Your task to perform on an android device: Go to wifi settings Image 0: 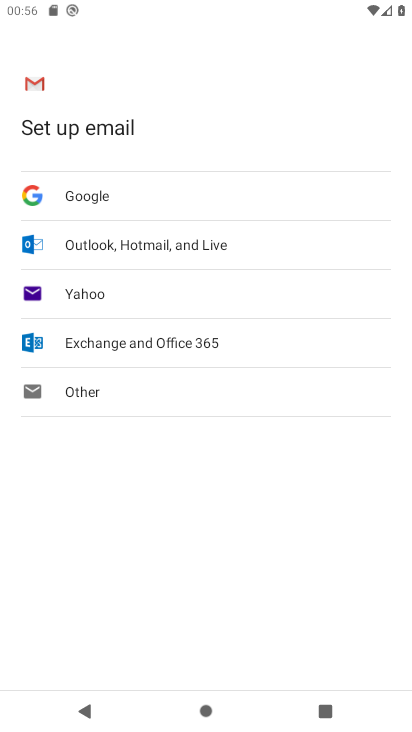
Step 0: press home button
Your task to perform on an android device: Go to wifi settings Image 1: 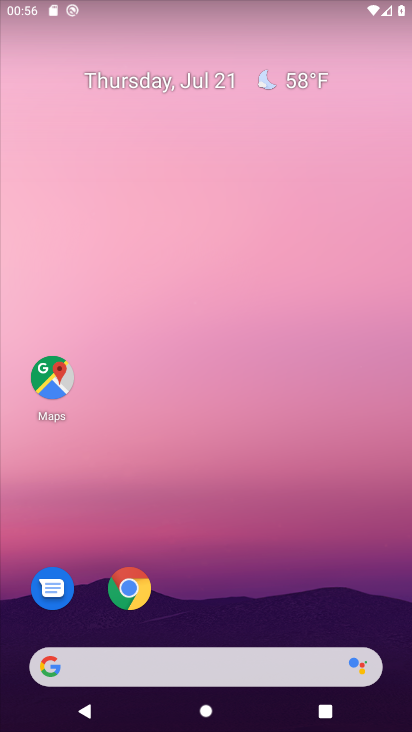
Step 1: drag from (198, 604) to (209, 148)
Your task to perform on an android device: Go to wifi settings Image 2: 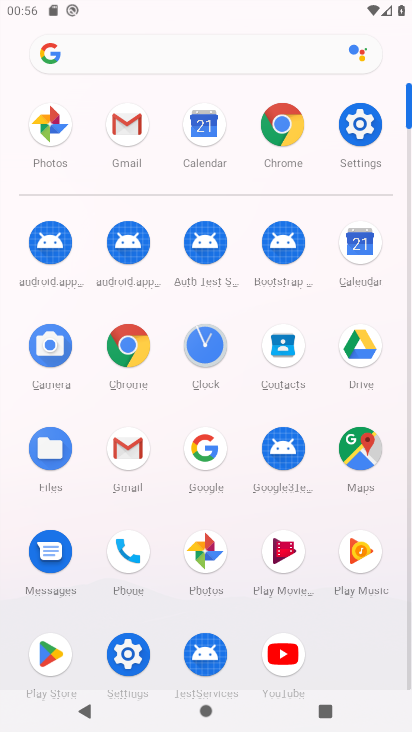
Step 2: click (353, 135)
Your task to perform on an android device: Go to wifi settings Image 3: 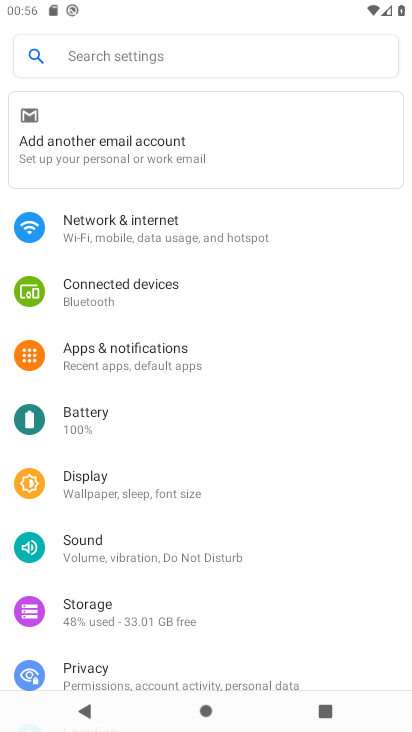
Step 3: click (103, 234)
Your task to perform on an android device: Go to wifi settings Image 4: 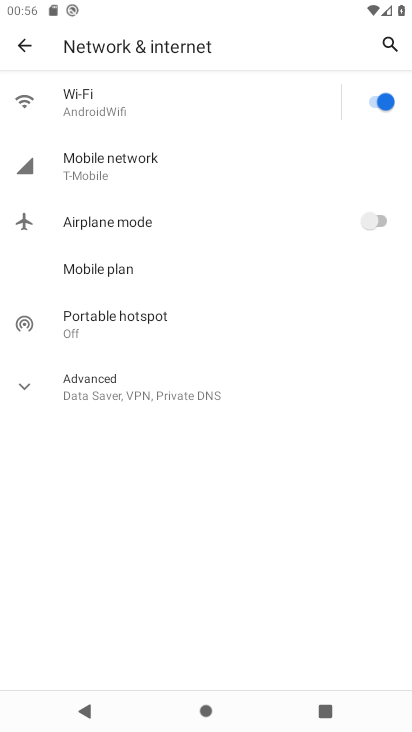
Step 4: click (123, 110)
Your task to perform on an android device: Go to wifi settings Image 5: 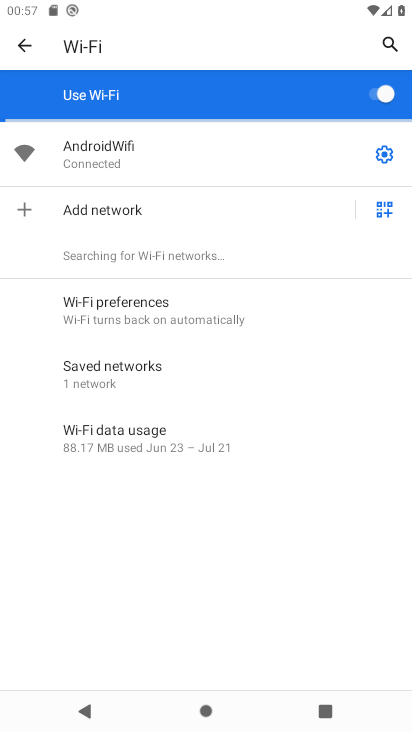
Step 5: task complete